Your task to perform on an android device: Open internet settings Image 0: 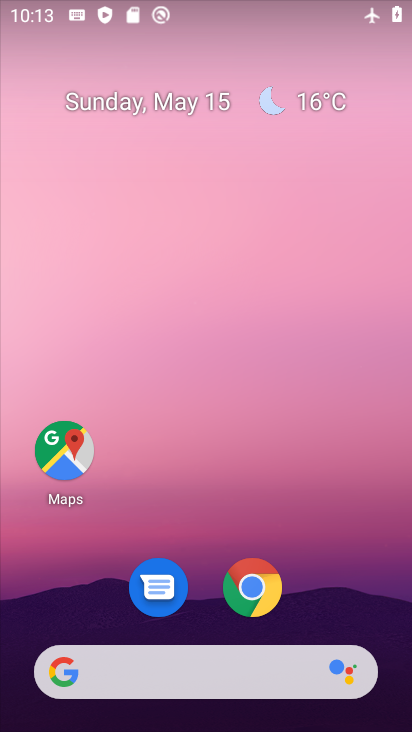
Step 0: drag from (323, 429) to (230, 26)
Your task to perform on an android device: Open internet settings Image 1: 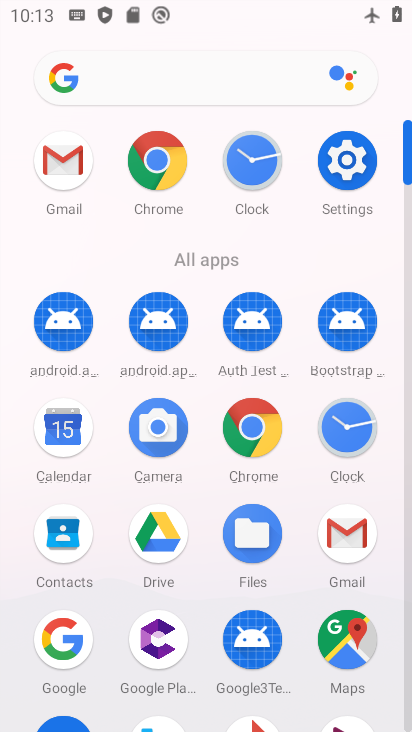
Step 1: drag from (8, 571) to (8, 220)
Your task to perform on an android device: Open internet settings Image 2: 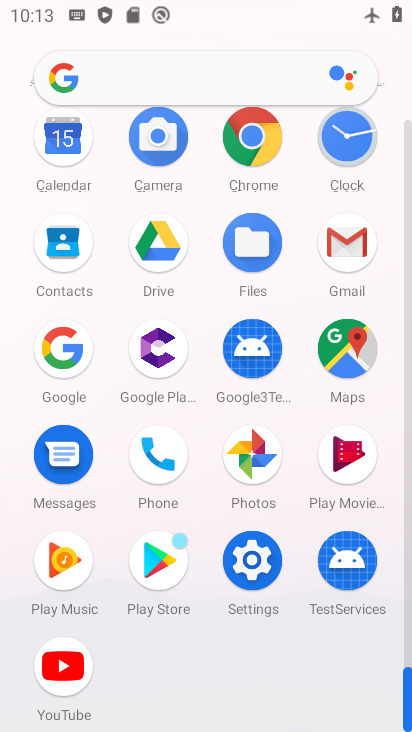
Step 2: click (251, 561)
Your task to perform on an android device: Open internet settings Image 3: 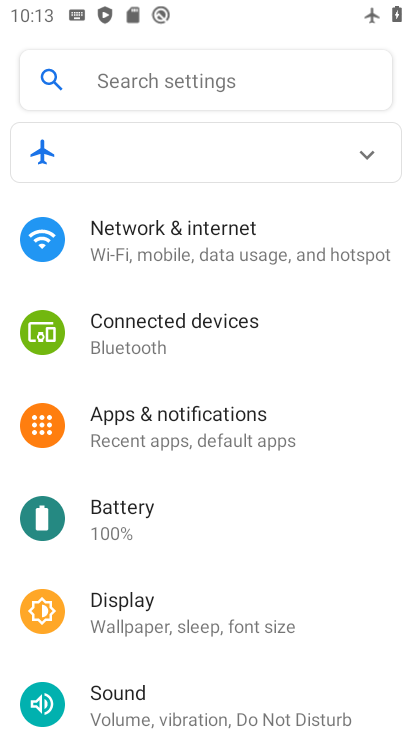
Step 3: click (211, 252)
Your task to perform on an android device: Open internet settings Image 4: 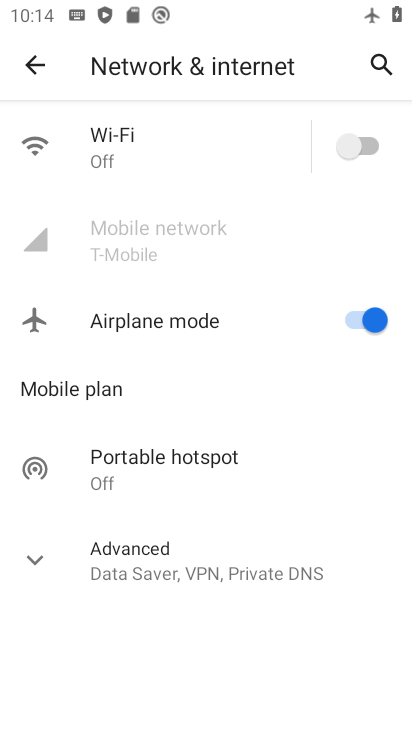
Step 4: click (44, 559)
Your task to perform on an android device: Open internet settings Image 5: 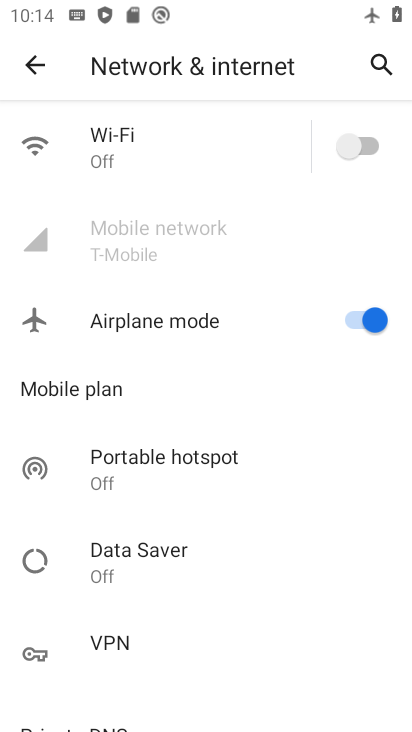
Step 5: task complete